Your task to perform on an android device: turn off improve location accuracy Image 0: 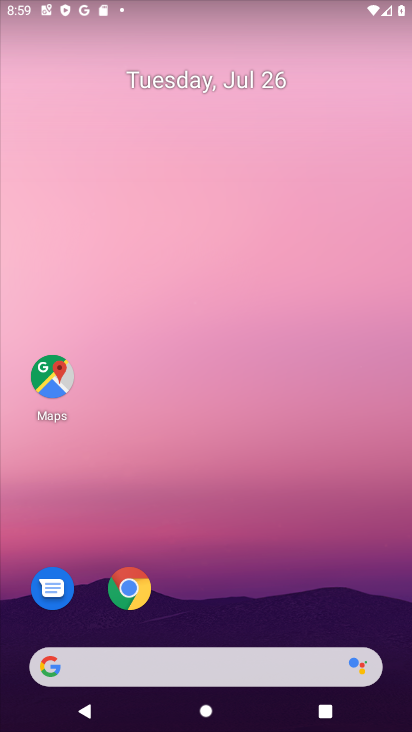
Step 0: press home button
Your task to perform on an android device: turn off improve location accuracy Image 1: 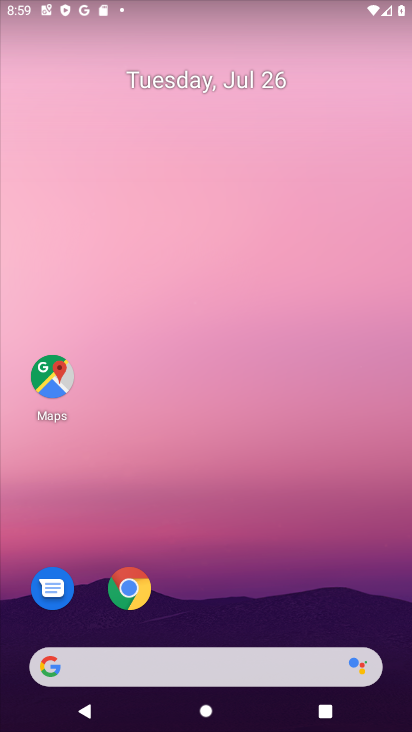
Step 1: drag from (209, 625) to (198, 2)
Your task to perform on an android device: turn off improve location accuracy Image 2: 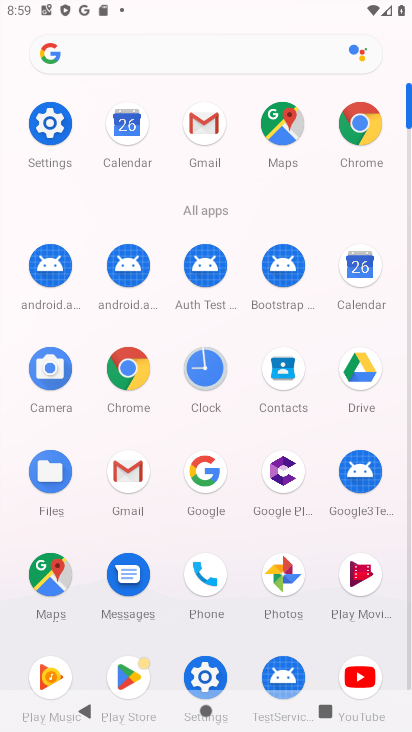
Step 2: click (47, 119)
Your task to perform on an android device: turn off improve location accuracy Image 3: 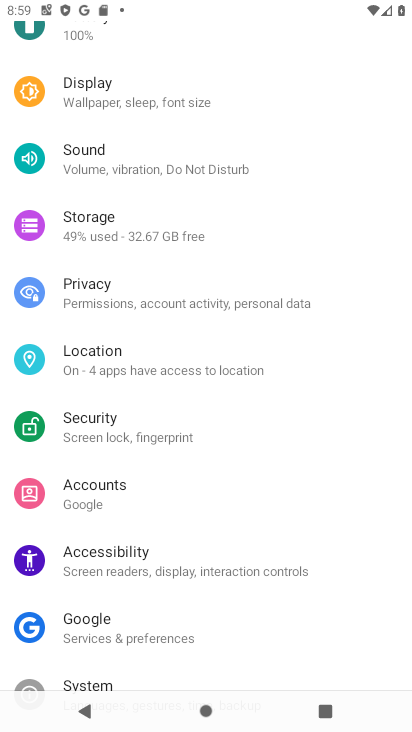
Step 3: click (133, 350)
Your task to perform on an android device: turn off improve location accuracy Image 4: 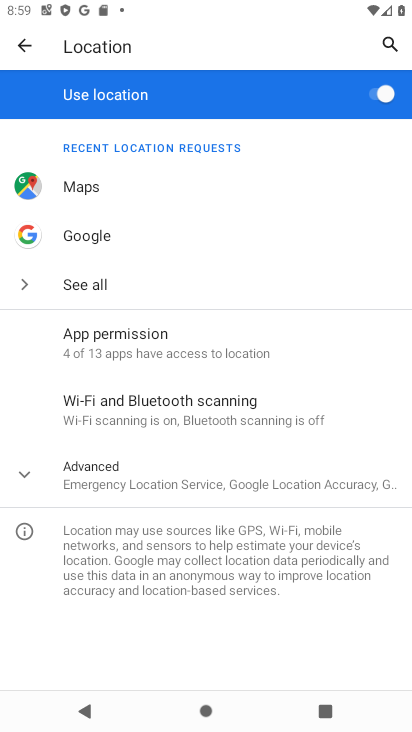
Step 4: click (26, 473)
Your task to perform on an android device: turn off improve location accuracy Image 5: 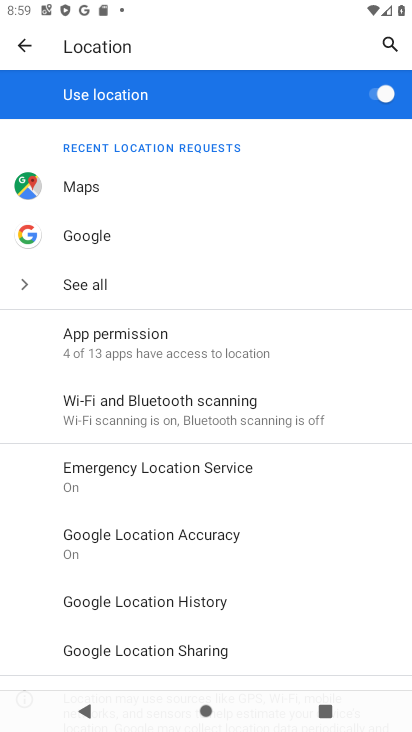
Step 5: click (164, 547)
Your task to perform on an android device: turn off improve location accuracy Image 6: 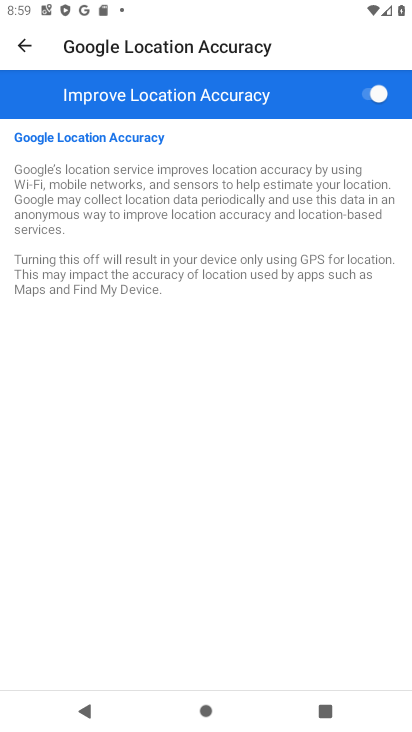
Step 6: click (369, 91)
Your task to perform on an android device: turn off improve location accuracy Image 7: 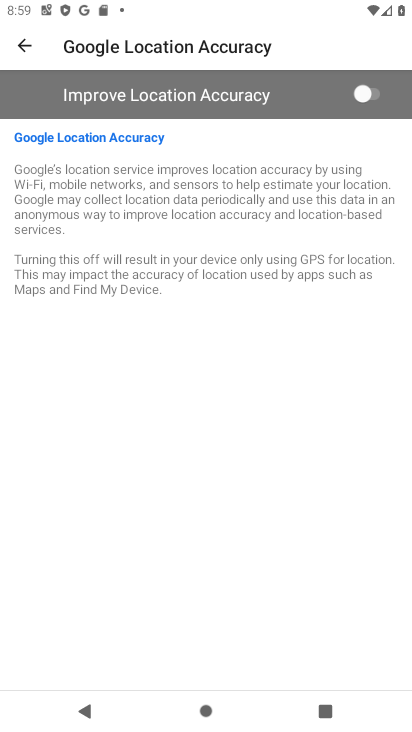
Step 7: task complete